Your task to perform on an android device: turn on javascript in the chrome app Image 0: 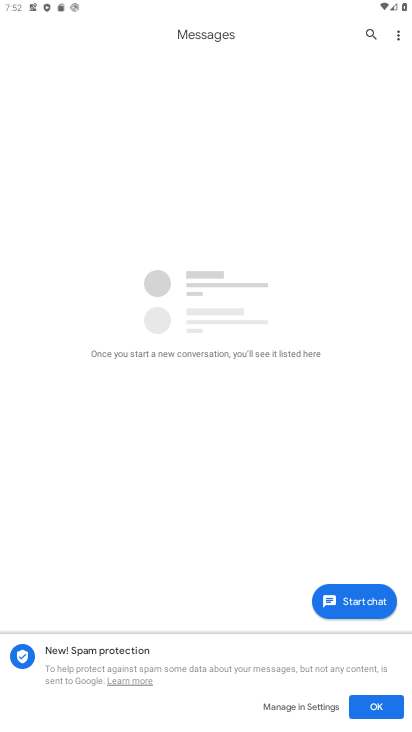
Step 0: drag from (262, 561) to (311, 304)
Your task to perform on an android device: turn on javascript in the chrome app Image 1: 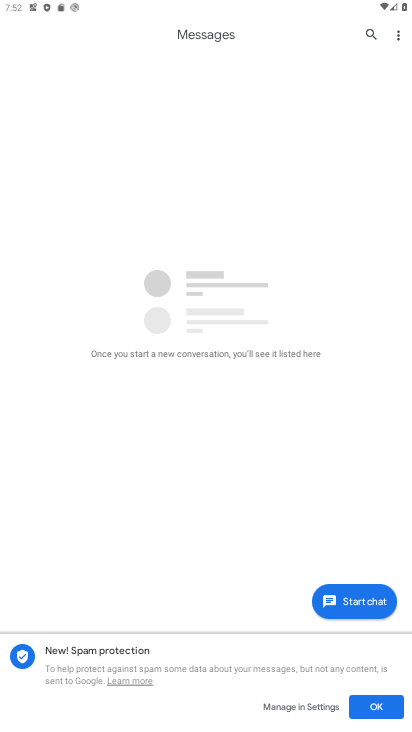
Step 1: press home button
Your task to perform on an android device: turn on javascript in the chrome app Image 2: 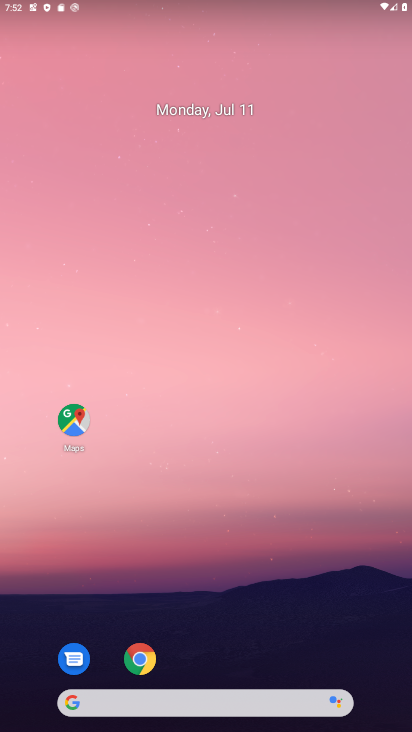
Step 2: drag from (199, 616) to (364, 1)
Your task to perform on an android device: turn on javascript in the chrome app Image 3: 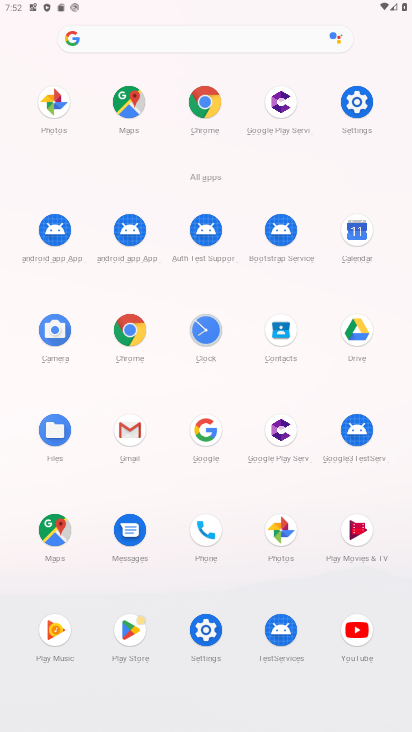
Step 3: click (210, 97)
Your task to perform on an android device: turn on javascript in the chrome app Image 4: 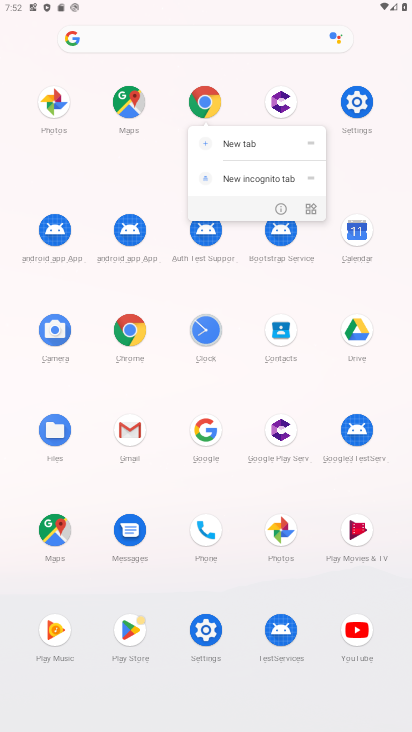
Step 4: click (282, 204)
Your task to perform on an android device: turn on javascript in the chrome app Image 5: 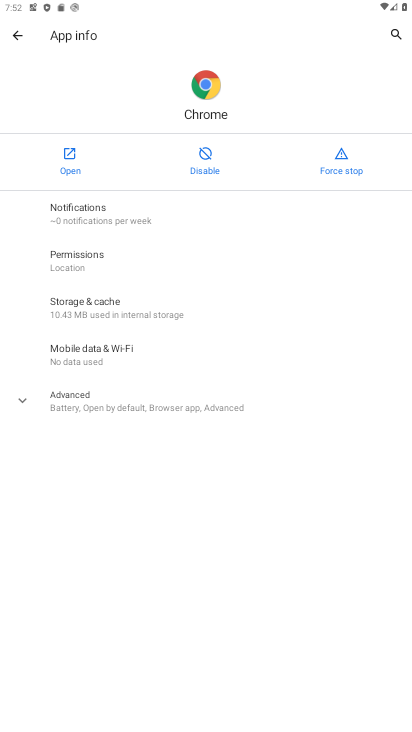
Step 5: click (70, 152)
Your task to perform on an android device: turn on javascript in the chrome app Image 6: 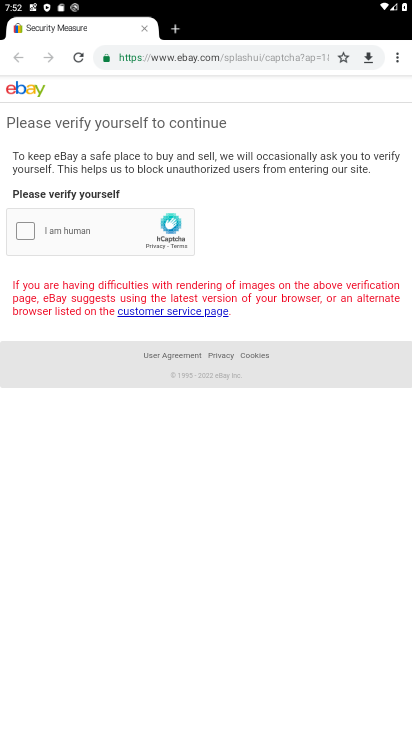
Step 6: click (403, 59)
Your task to perform on an android device: turn on javascript in the chrome app Image 7: 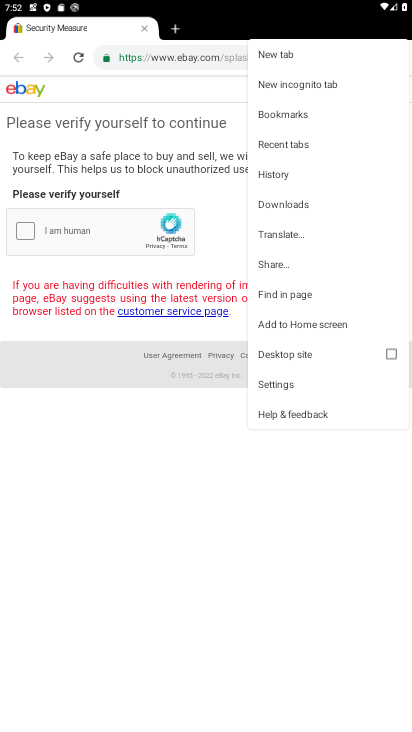
Step 7: click (274, 392)
Your task to perform on an android device: turn on javascript in the chrome app Image 8: 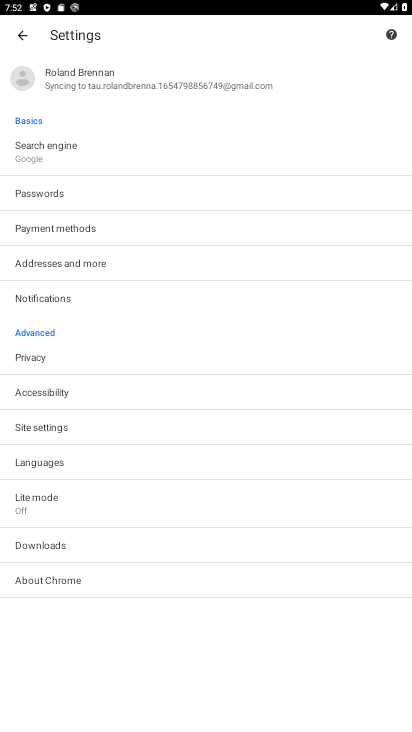
Step 8: click (78, 417)
Your task to perform on an android device: turn on javascript in the chrome app Image 9: 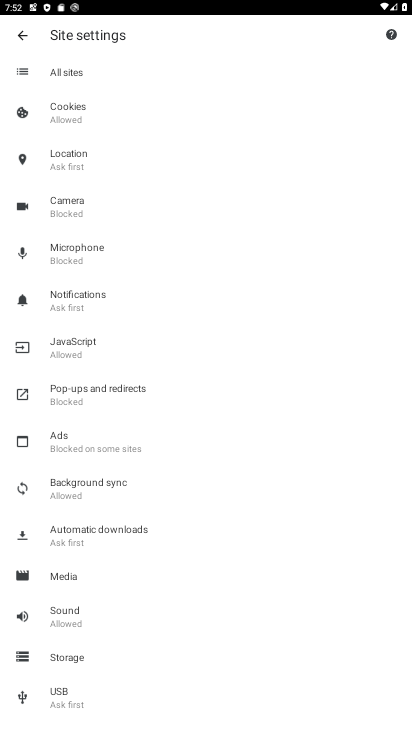
Step 9: click (89, 357)
Your task to perform on an android device: turn on javascript in the chrome app Image 10: 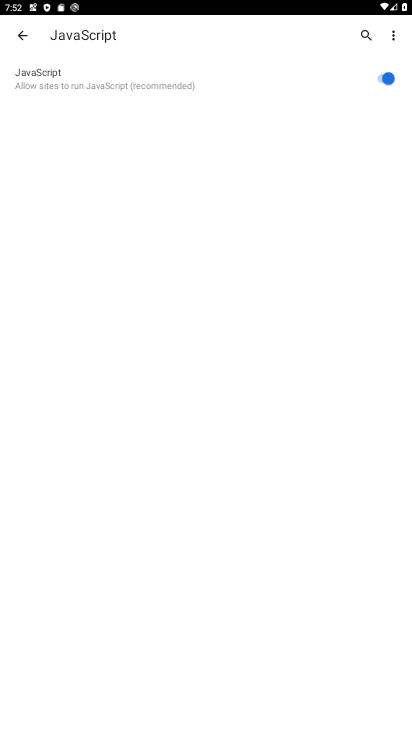
Step 10: task complete